Your task to perform on an android device: Go to privacy settings Image 0: 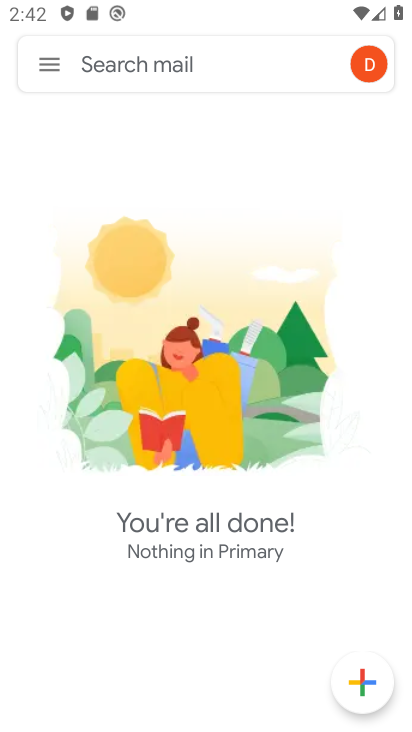
Step 0: press home button
Your task to perform on an android device: Go to privacy settings Image 1: 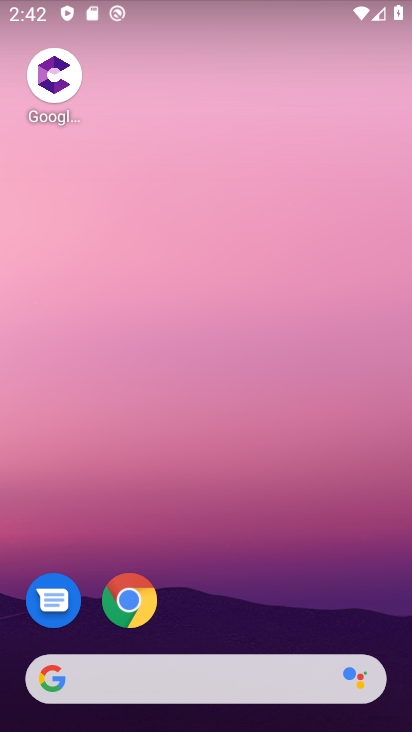
Step 1: drag from (235, 581) to (272, 117)
Your task to perform on an android device: Go to privacy settings Image 2: 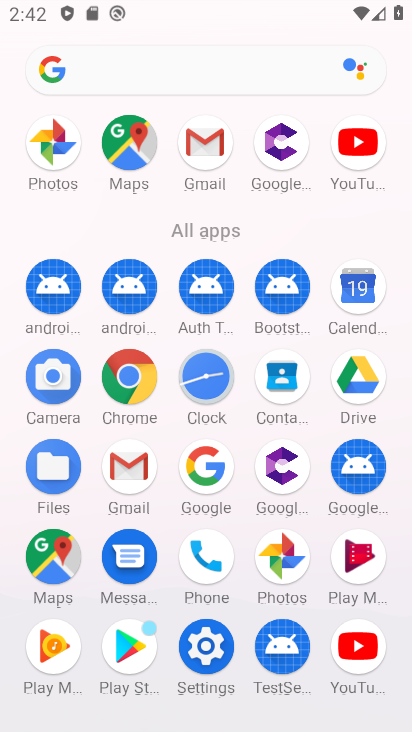
Step 2: drag from (200, 507) to (210, 291)
Your task to perform on an android device: Go to privacy settings Image 3: 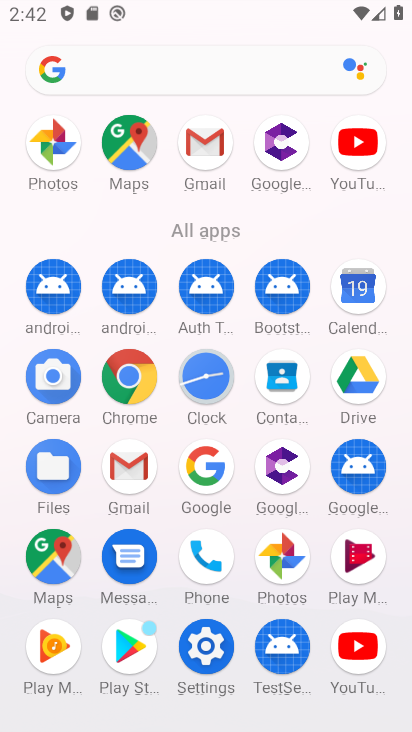
Step 3: click (213, 665)
Your task to perform on an android device: Go to privacy settings Image 4: 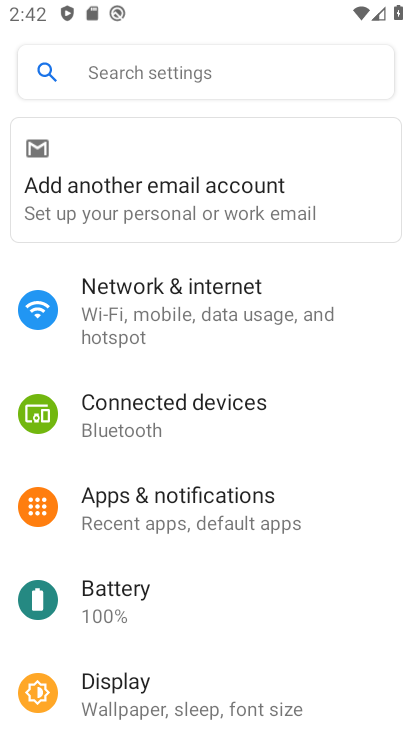
Step 4: drag from (212, 418) to (230, 303)
Your task to perform on an android device: Go to privacy settings Image 5: 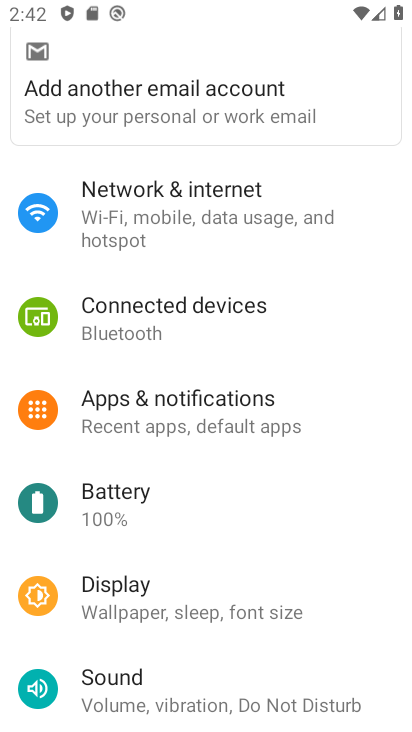
Step 5: drag from (209, 650) to (222, 447)
Your task to perform on an android device: Go to privacy settings Image 6: 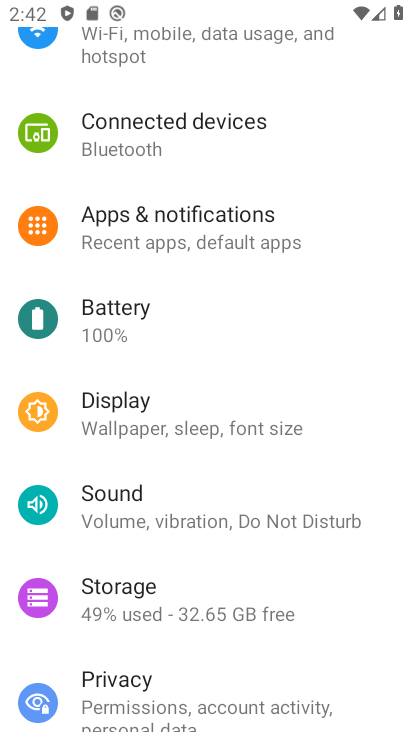
Step 6: click (179, 687)
Your task to perform on an android device: Go to privacy settings Image 7: 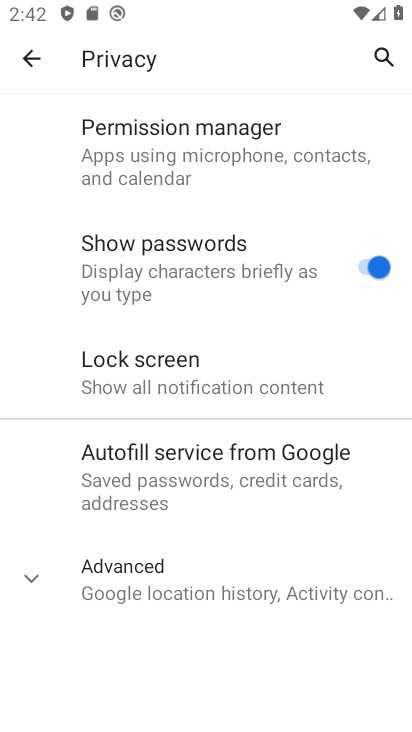
Step 7: task complete